Your task to perform on an android device: When is my next meeting? Image 0: 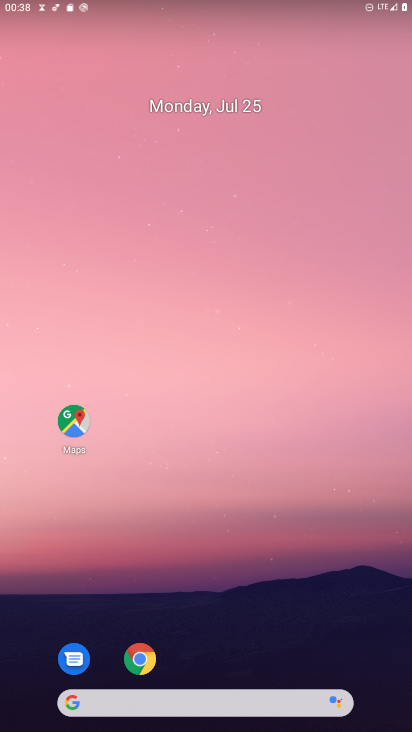
Step 0: drag from (244, 635) to (247, 222)
Your task to perform on an android device: When is my next meeting? Image 1: 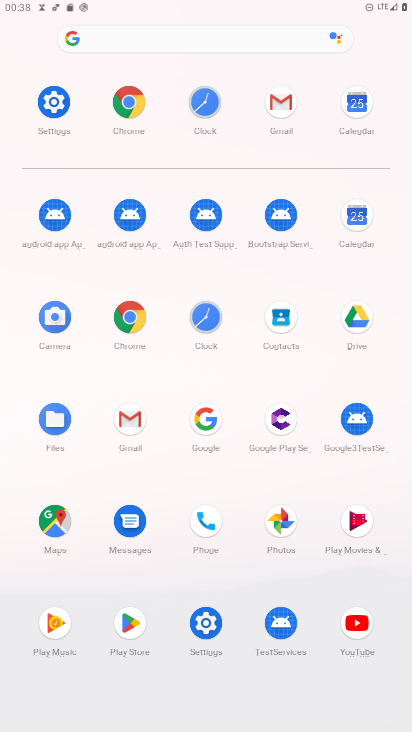
Step 1: click (354, 97)
Your task to perform on an android device: When is my next meeting? Image 2: 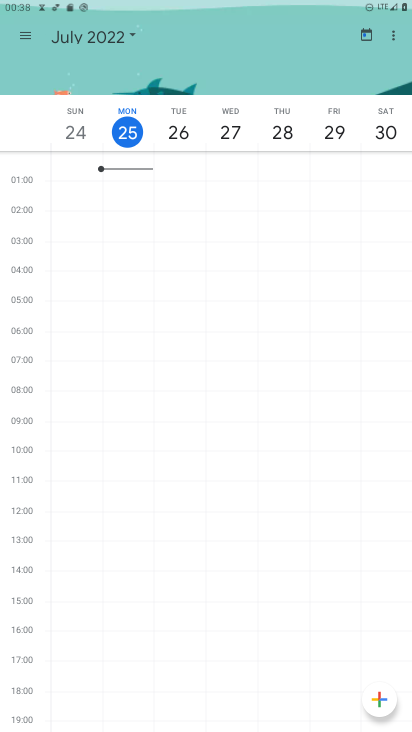
Step 2: click (189, 140)
Your task to perform on an android device: When is my next meeting? Image 3: 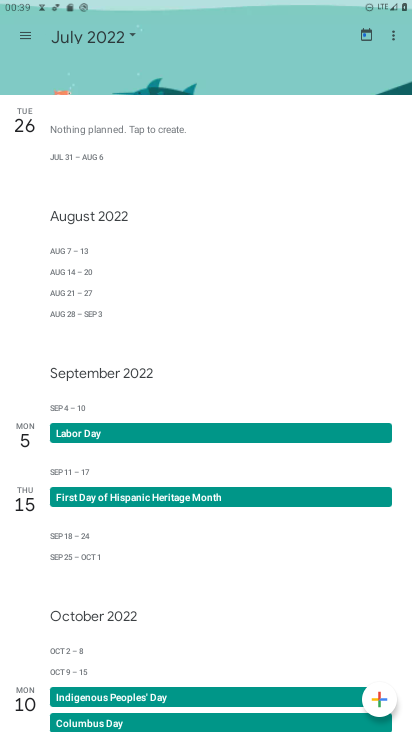
Step 3: task complete